Your task to perform on an android device: change notifications settings Image 0: 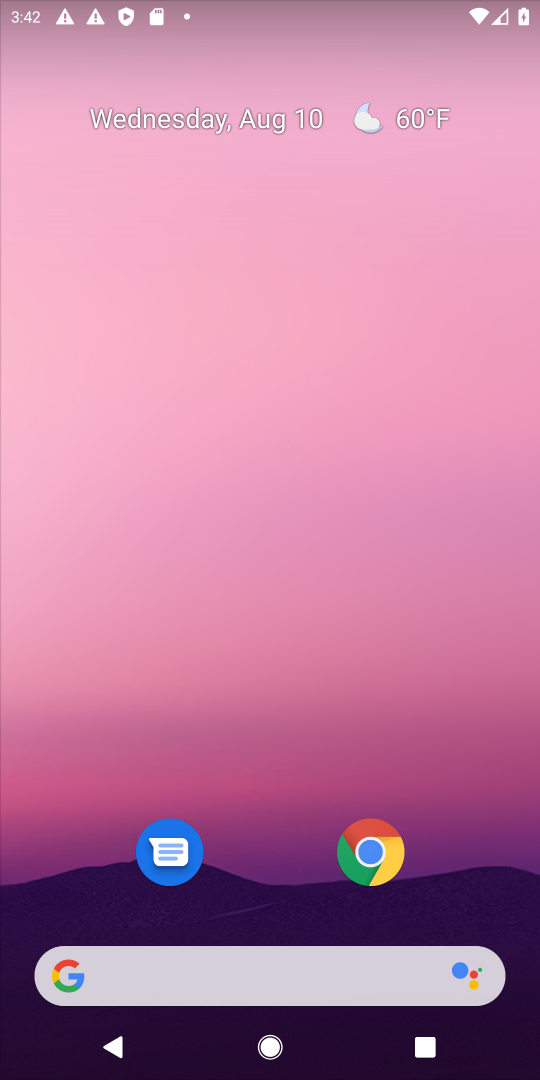
Step 0: drag from (278, 840) to (293, 65)
Your task to perform on an android device: change notifications settings Image 1: 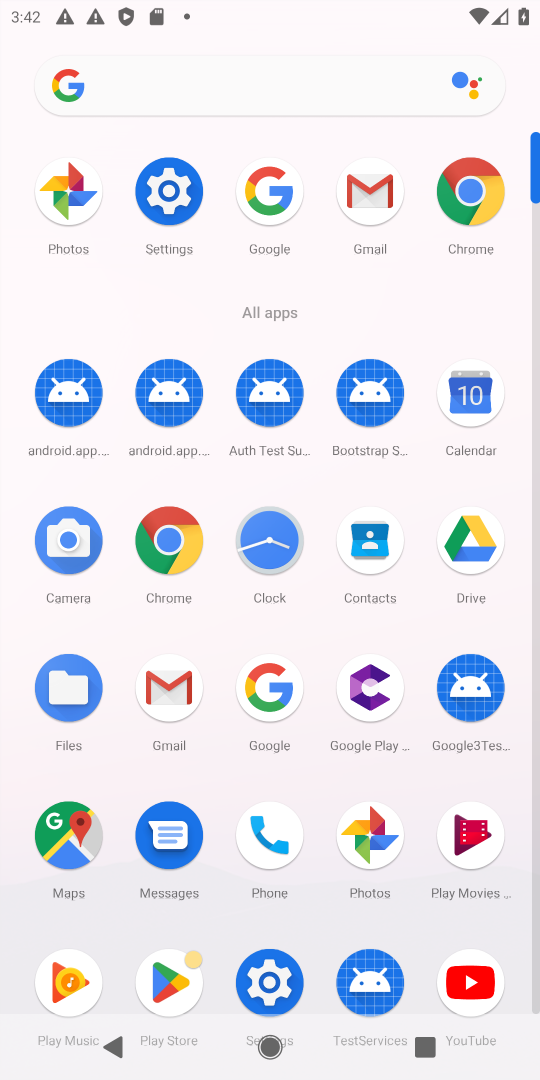
Step 1: click (182, 206)
Your task to perform on an android device: change notifications settings Image 2: 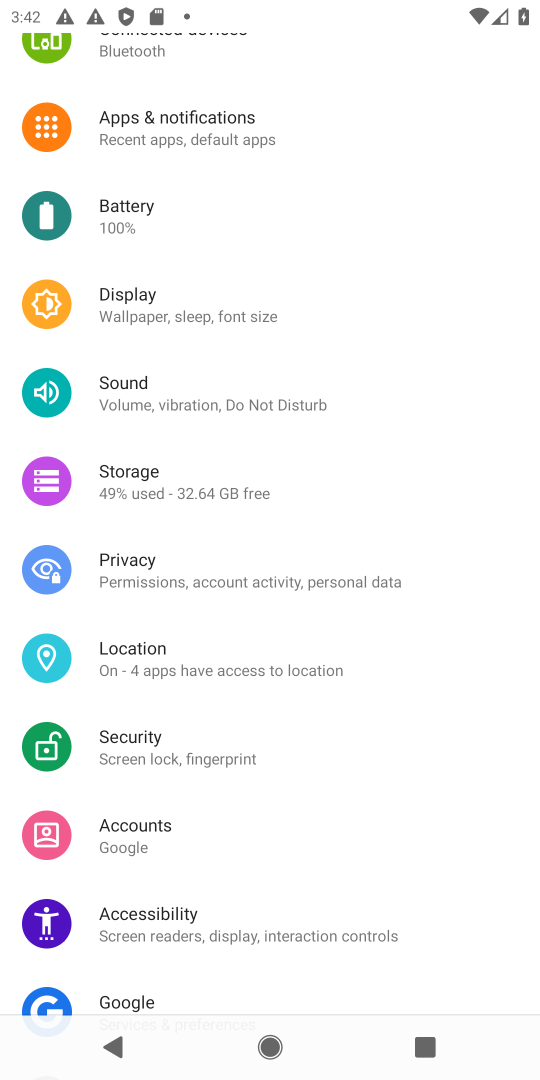
Step 2: click (195, 124)
Your task to perform on an android device: change notifications settings Image 3: 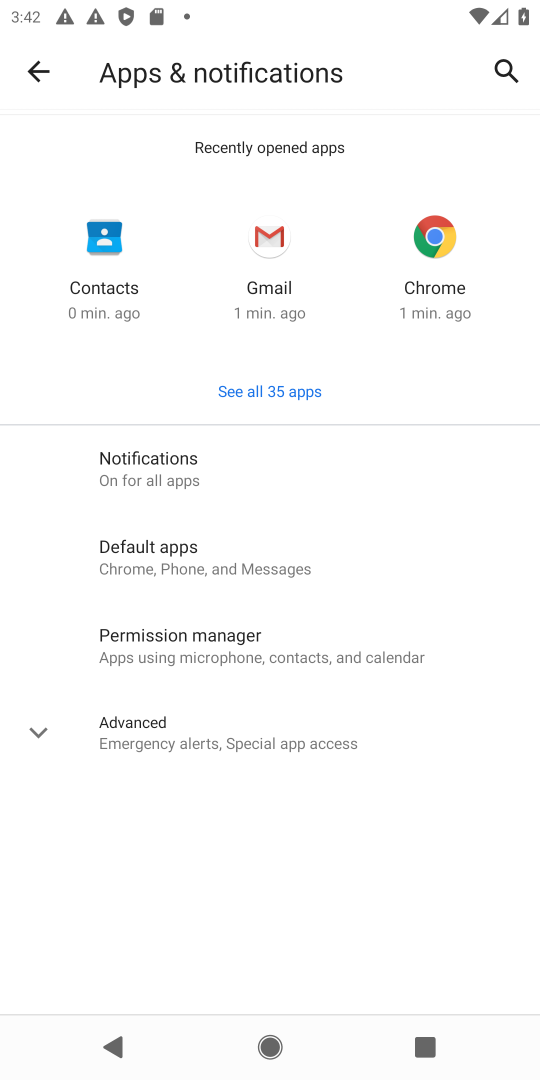
Step 3: click (177, 463)
Your task to perform on an android device: change notifications settings Image 4: 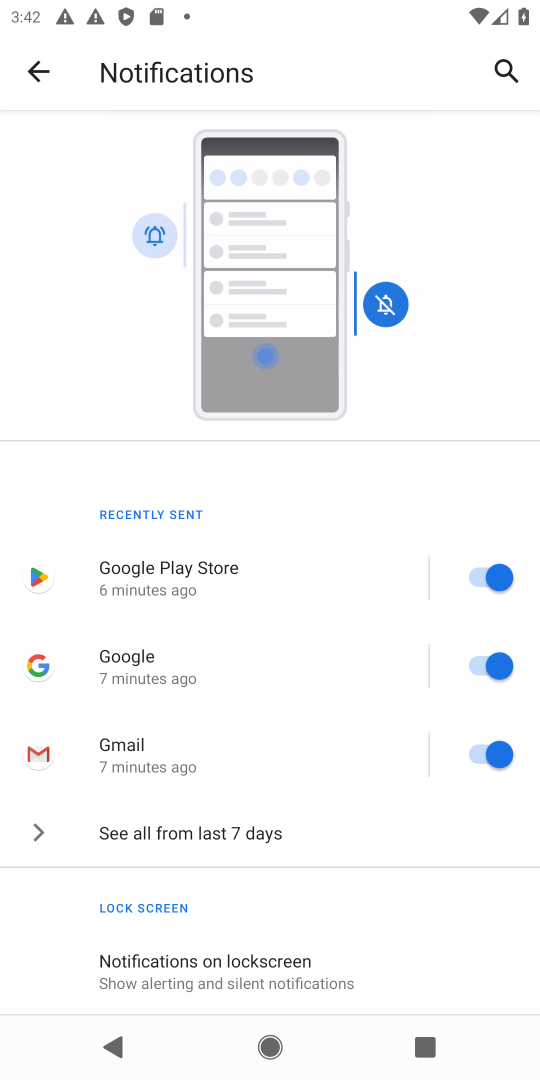
Step 4: drag from (344, 938) to (377, 168)
Your task to perform on an android device: change notifications settings Image 5: 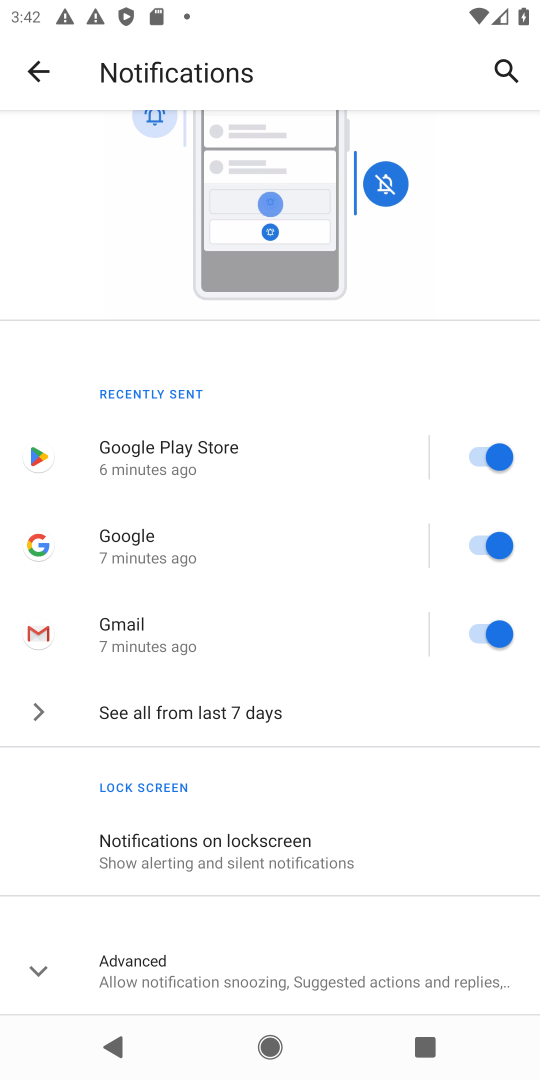
Step 5: click (226, 960)
Your task to perform on an android device: change notifications settings Image 6: 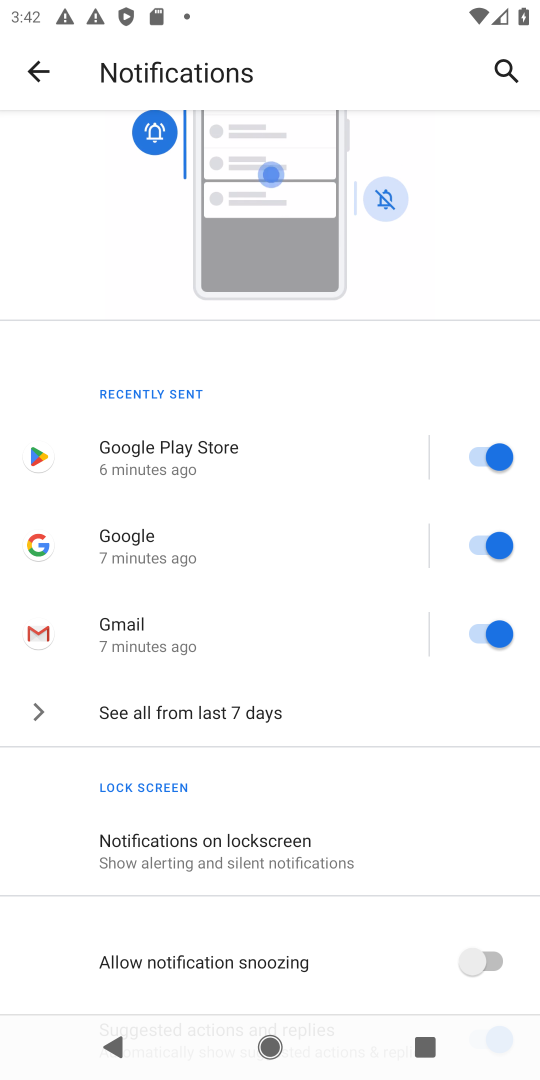
Step 6: task complete